Your task to perform on an android device: toggle data saver in the chrome app Image 0: 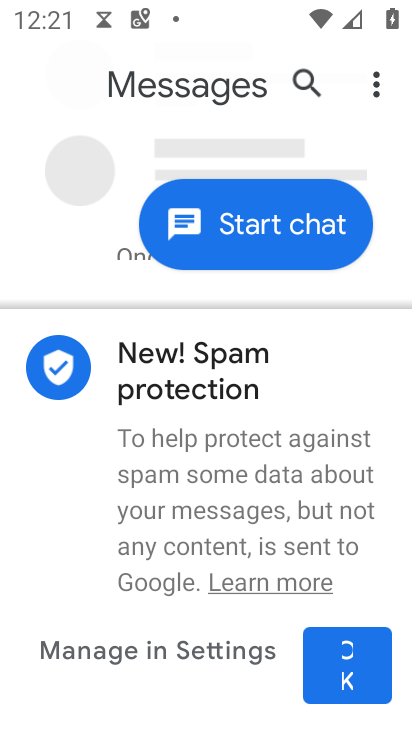
Step 0: press home button
Your task to perform on an android device: toggle data saver in the chrome app Image 1: 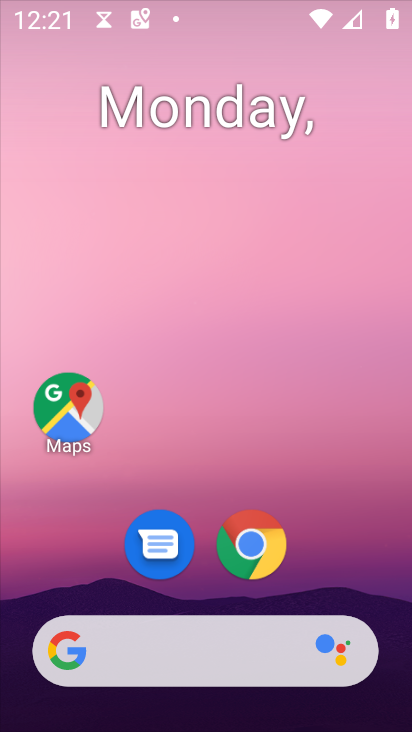
Step 1: drag from (304, 588) to (325, 194)
Your task to perform on an android device: toggle data saver in the chrome app Image 2: 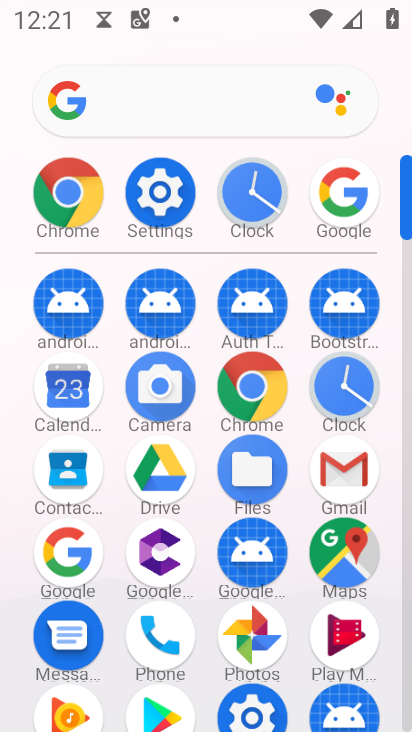
Step 2: click (258, 383)
Your task to perform on an android device: toggle data saver in the chrome app Image 3: 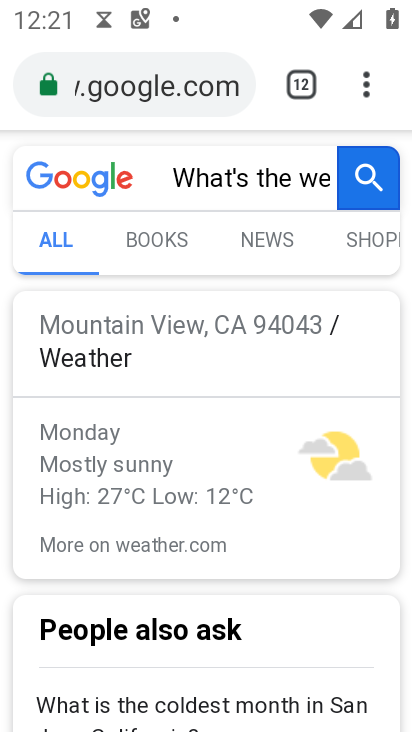
Step 3: click (367, 80)
Your task to perform on an android device: toggle data saver in the chrome app Image 4: 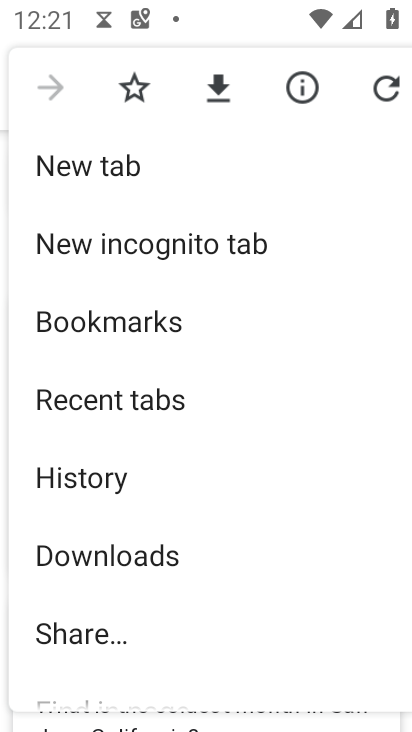
Step 4: drag from (202, 660) to (294, 241)
Your task to perform on an android device: toggle data saver in the chrome app Image 5: 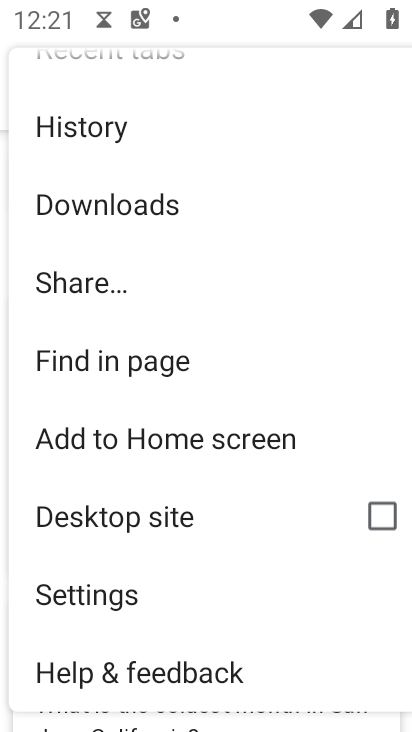
Step 5: click (152, 609)
Your task to perform on an android device: toggle data saver in the chrome app Image 6: 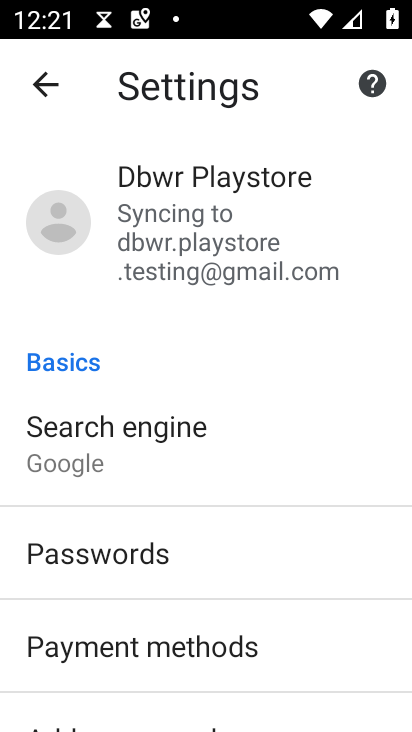
Step 6: drag from (186, 627) to (302, 80)
Your task to perform on an android device: toggle data saver in the chrome app Image 7: 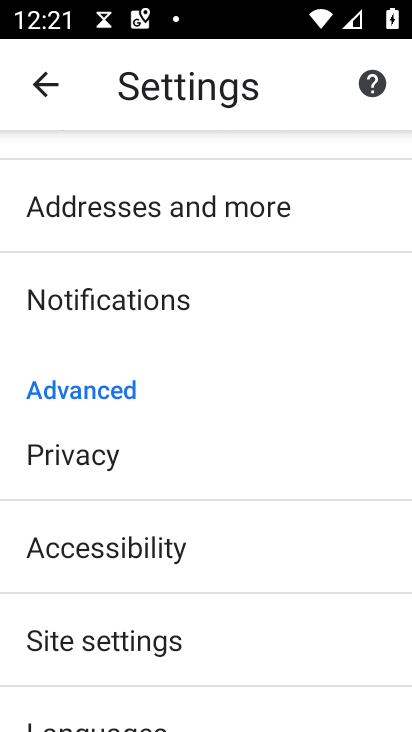
Step 7: click (210, 643)
Your task to perform on an android device: toggle data saver in the chrome app Image 8: 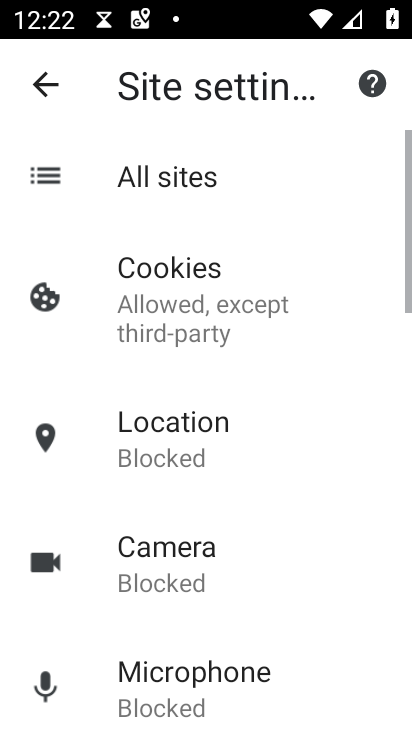
Step 8: task complete